Your task to perform on an android device: What is the news today? Image 0: 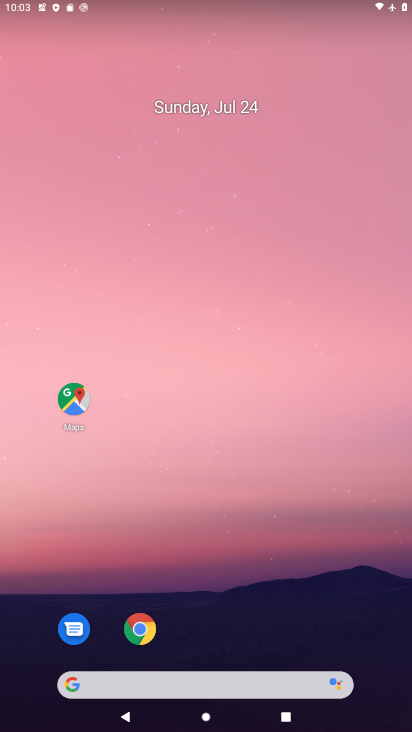
Step 0: click (302, 647)
Your task to perform on an android device: What is the news today? Image 1: 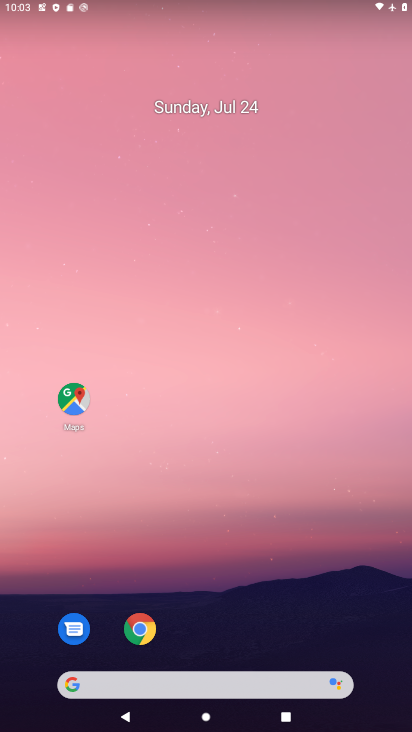
Step 1: click (255, 671)
Your task to perform on an android device: What is the news today? Image 2: 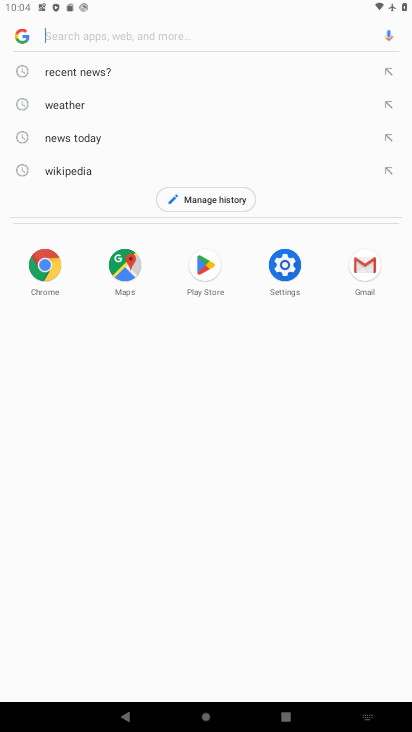
Step 2: click (131, 70)
Your task to perform on an android device: What is the news today? Image 3: 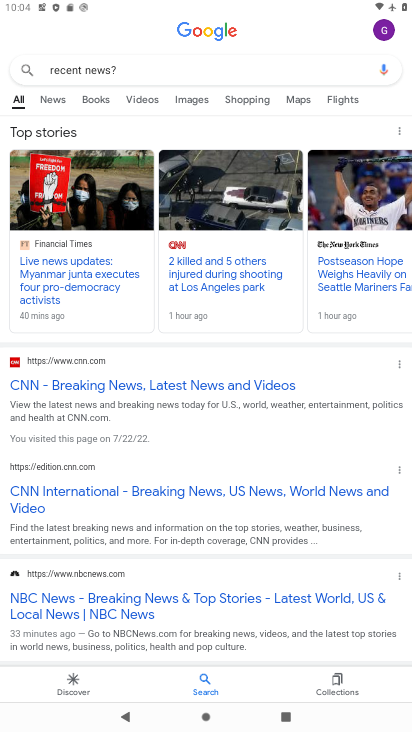
Step 3: task complete